Your task to perform on an android device: check battery use Image 0: 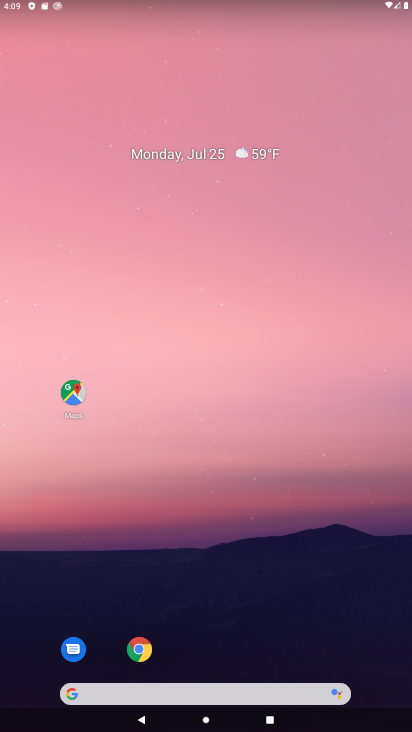
Step 0: drag from (349, 557) to (263, 2)
Your task to perform on an android device: check battery use Image 1: 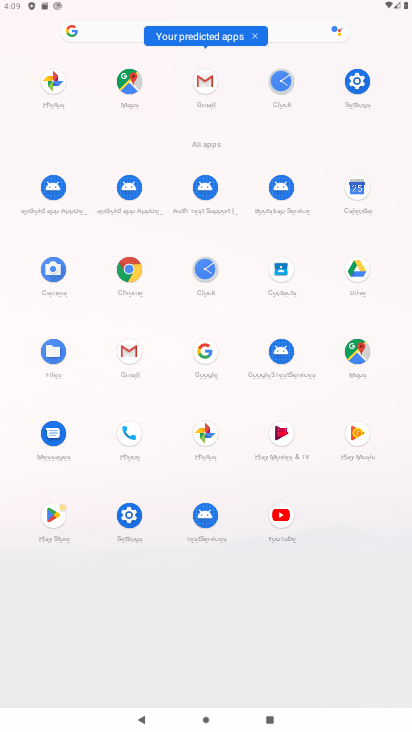
Step 1: click (363, 76)
Your task to perform on an android device: check battery use Image 2: 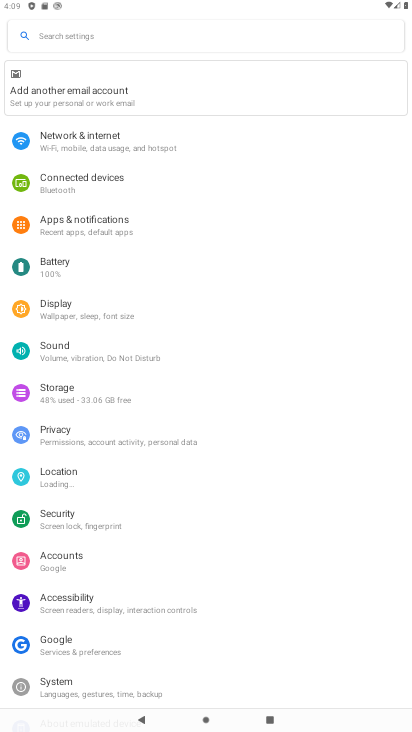
Step 2: click (67, 265)
Your task to perform on an android device: check battery use Image 3: 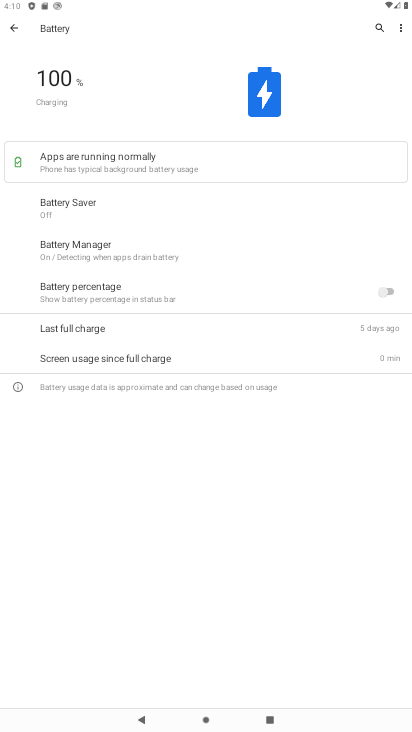
Step 3: task complete